Your task to perform on an android device: What's on my calendar today? Image 0: 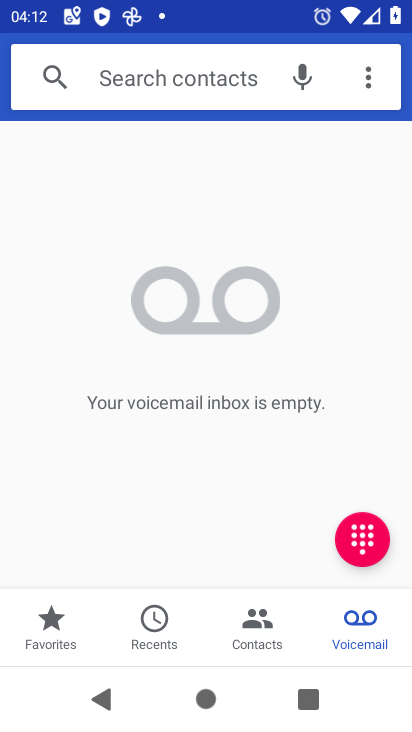
Step 0: click (254, 510)
Your task to perform on an android device: What's on my calendar today? Image 1: 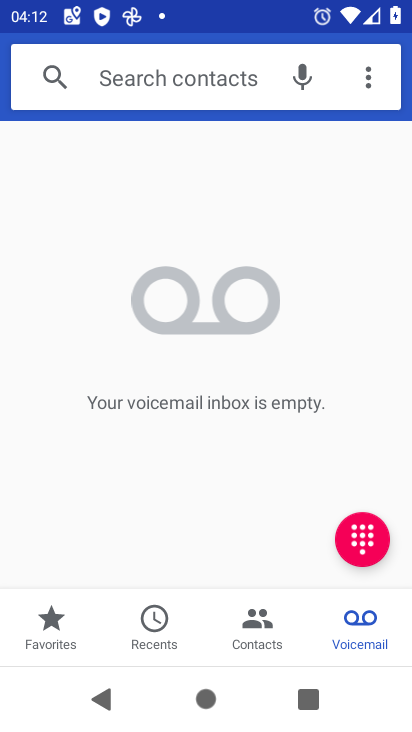
Step 1: press home button
Your task to perform on an android device: What's on my calendar today? Image 2: 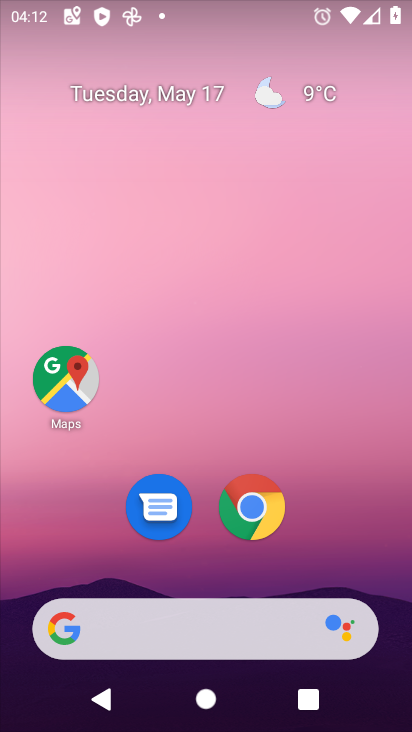
Step 2: drag from (336, 545) to (219, 40)
Your task to perform on an android device: What's on my calendar today? Image 3: 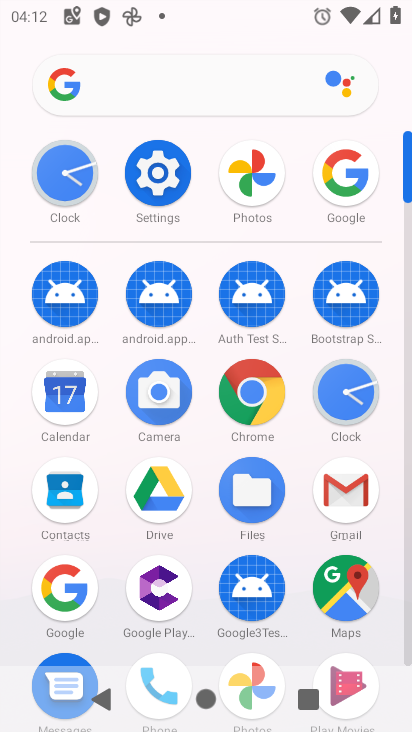
Step 3: click (63, 395)
Your task to perform on an android device: What's on my calendar today? Image 4: 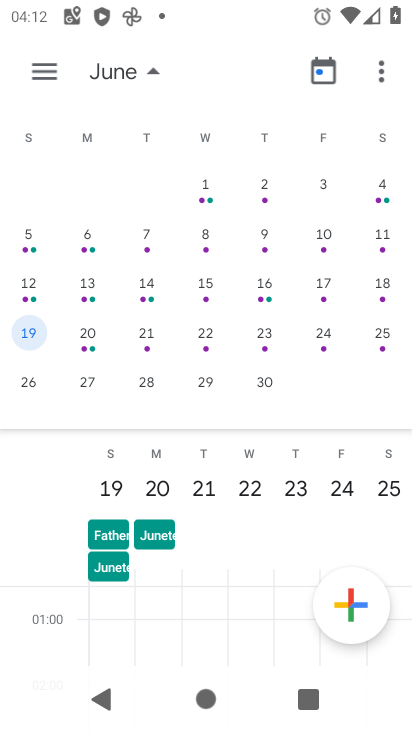
Step 4: click (42, 74)
Your task to perform on an android device: What's on my calendar today? Image 5: 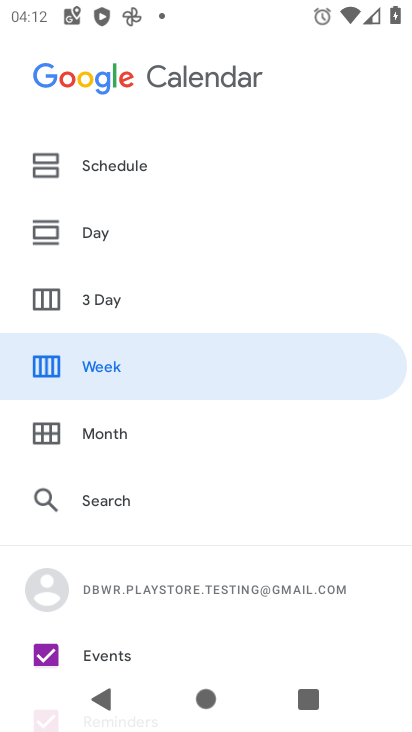
Step 5: click (104, 234)
Your task to perform on an android device: What's on my calendar today? Image 6: 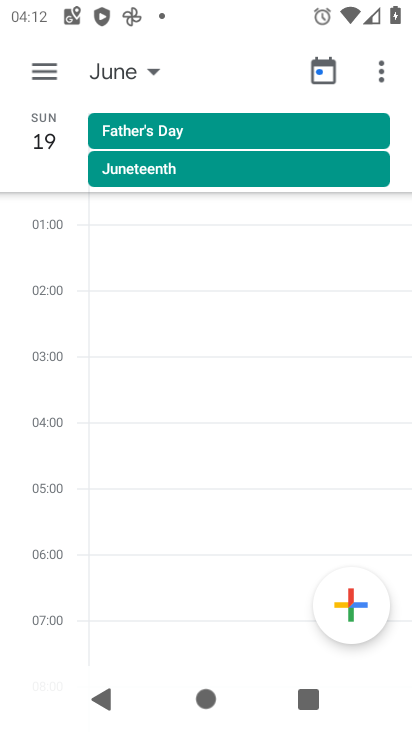
Step 6: click (145, 75)
Your task to perform on an android device: What's on my calendar today? Image 7: 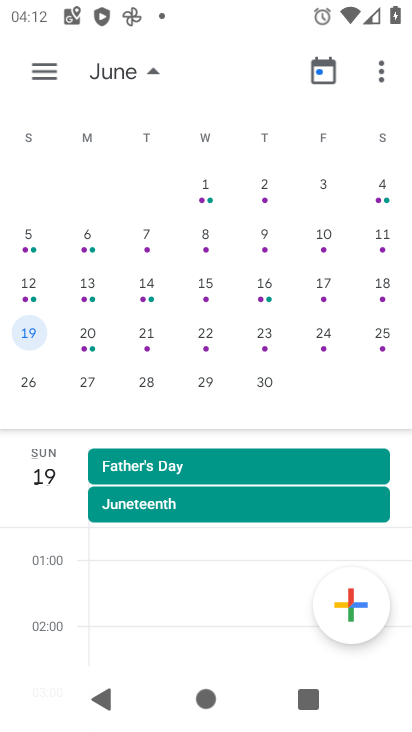
Step 7: drag from (77, 231) to (397, 237)
Your task to perform on an android device: What's on my calendar today? Image 8: 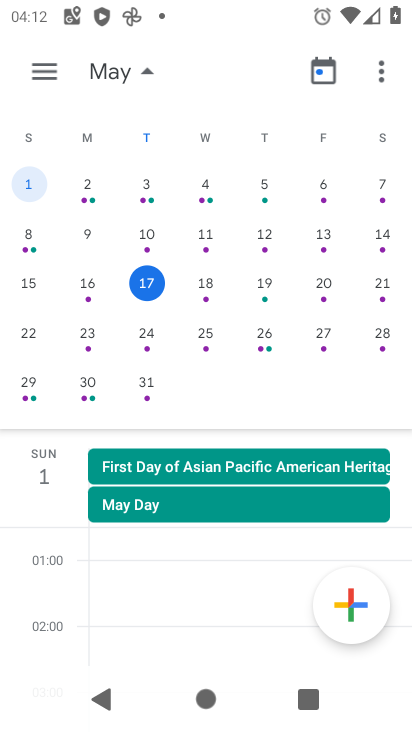
Step 8: click (142, 286)
Your task to perform on an android device: What's on my calendar today? Image 9: 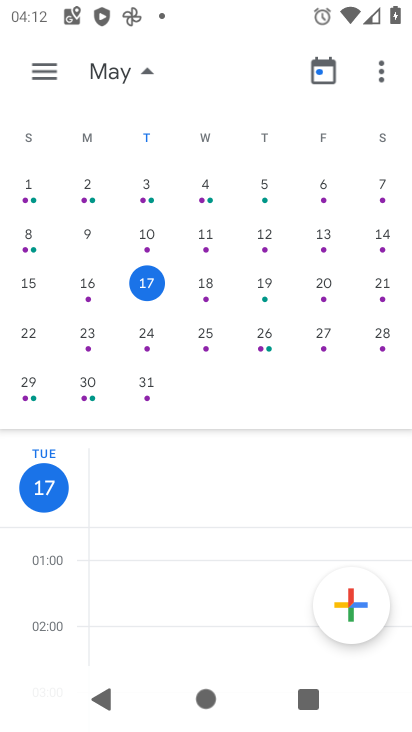
Step 9: task complete